Your task to perform on an android device: all mails in gmail Image 0: 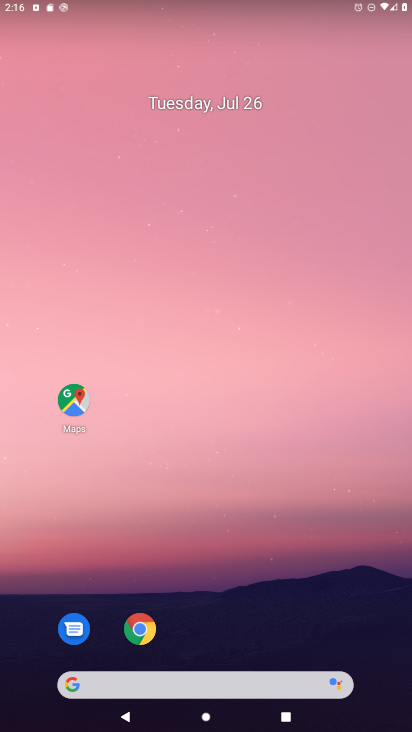
Step 0: drag from (379, 640) to (298, 110)
Your task to perform on an android device: all mails in gmail Image 1: 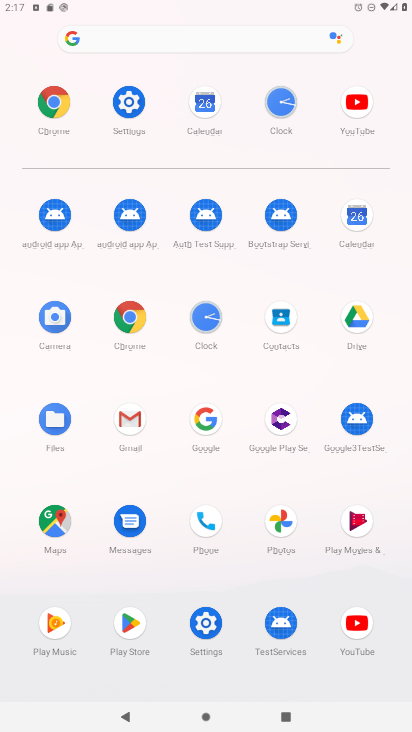
Step 1: click (131, 421)
Your task to perform on an android device: all mails in gmail Image 2: 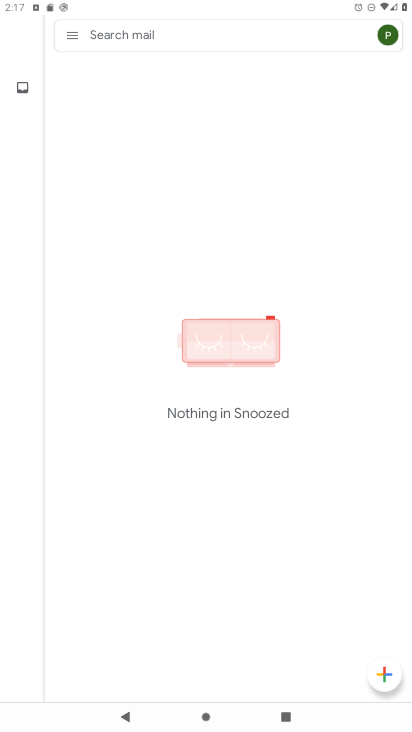
Step 2: click (70, 37)
Your task to perform on an android device: all mails in gmail Image 3: 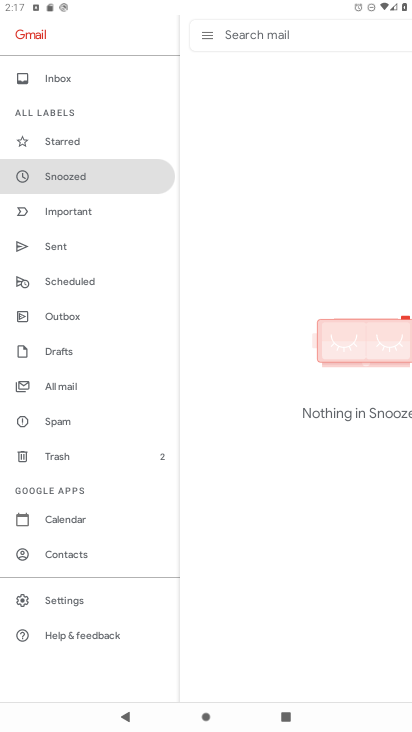
Step 3: click (57, 387)
Your task to perform on an android device: all mails in gmail Image 4: 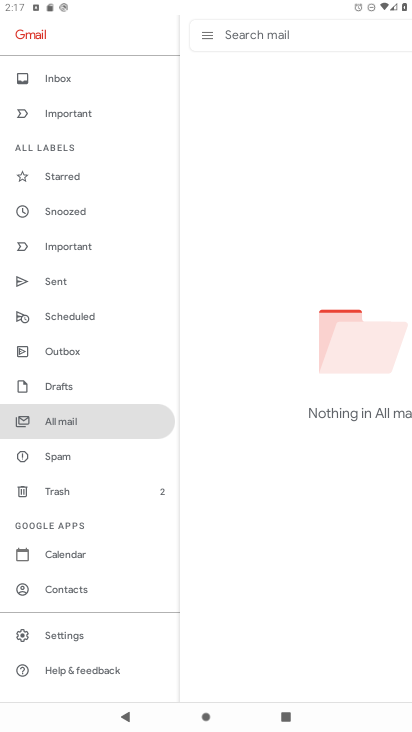
Step 4: task complete